Your task to perform on an android device: Clear the cart on target. Image 0: 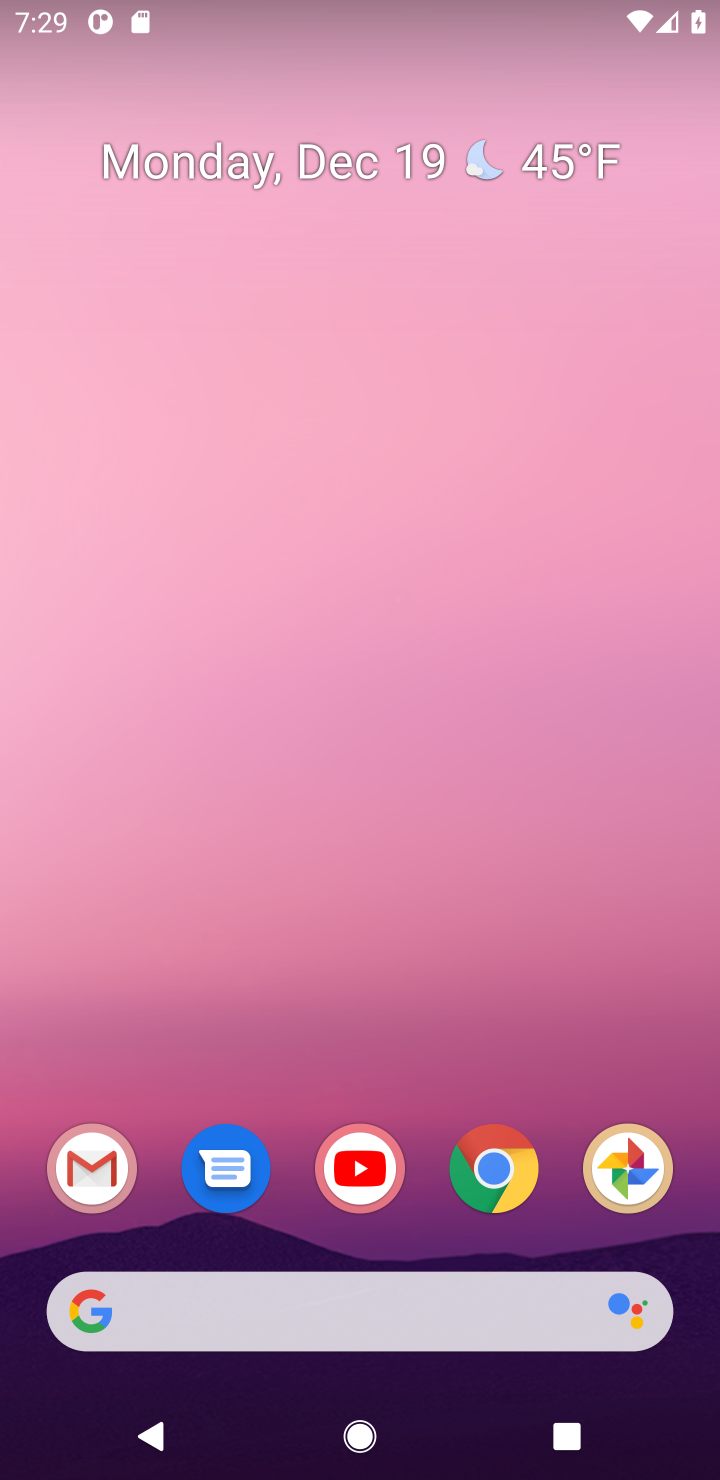
Step 0: click (493, 1173)
Your task to perform on an android device: Clear the cart on target. Image 1: 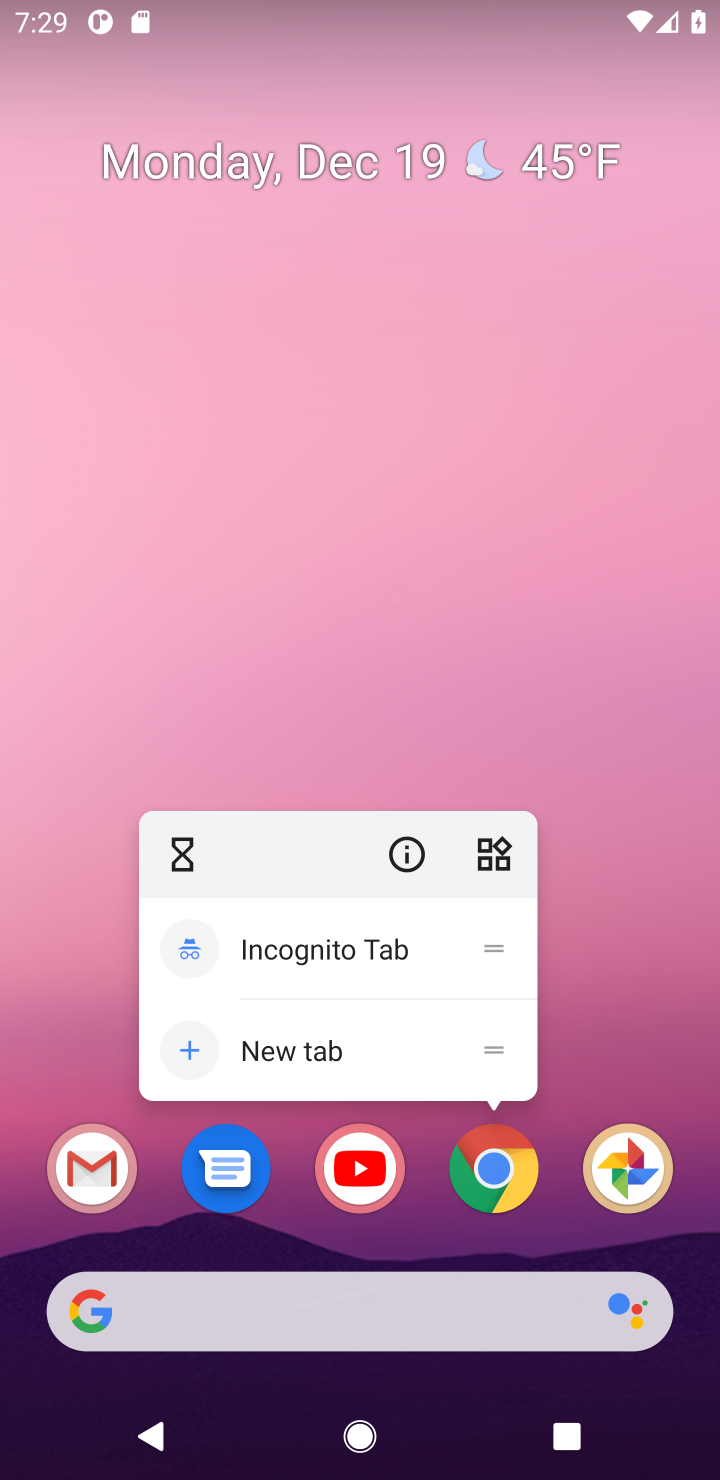
Step 1: click (493, 1173)
Your task to perform on an android device: Clear the cart on target. Image 2: 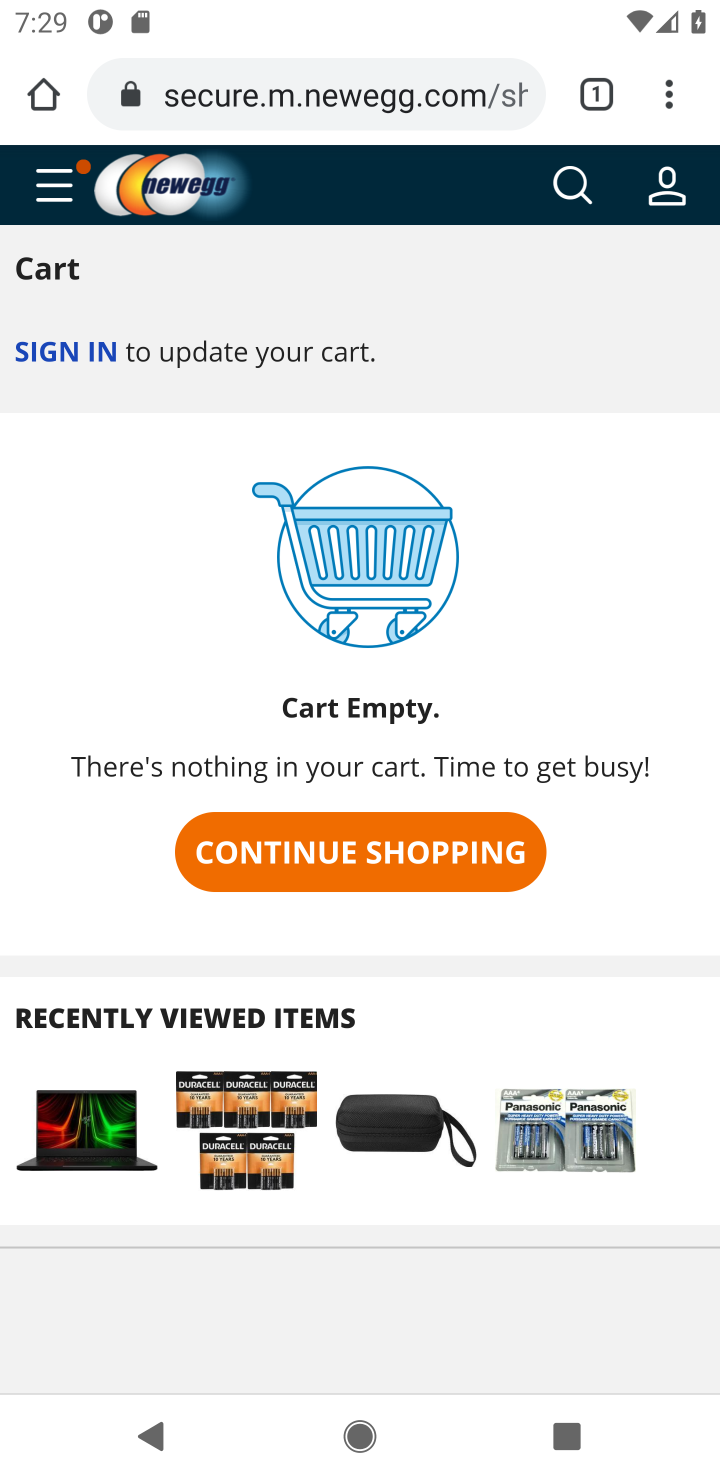
Step 2: click (305, 107)
Your task to perform on an android device: Clear the cart on target. Image 3: 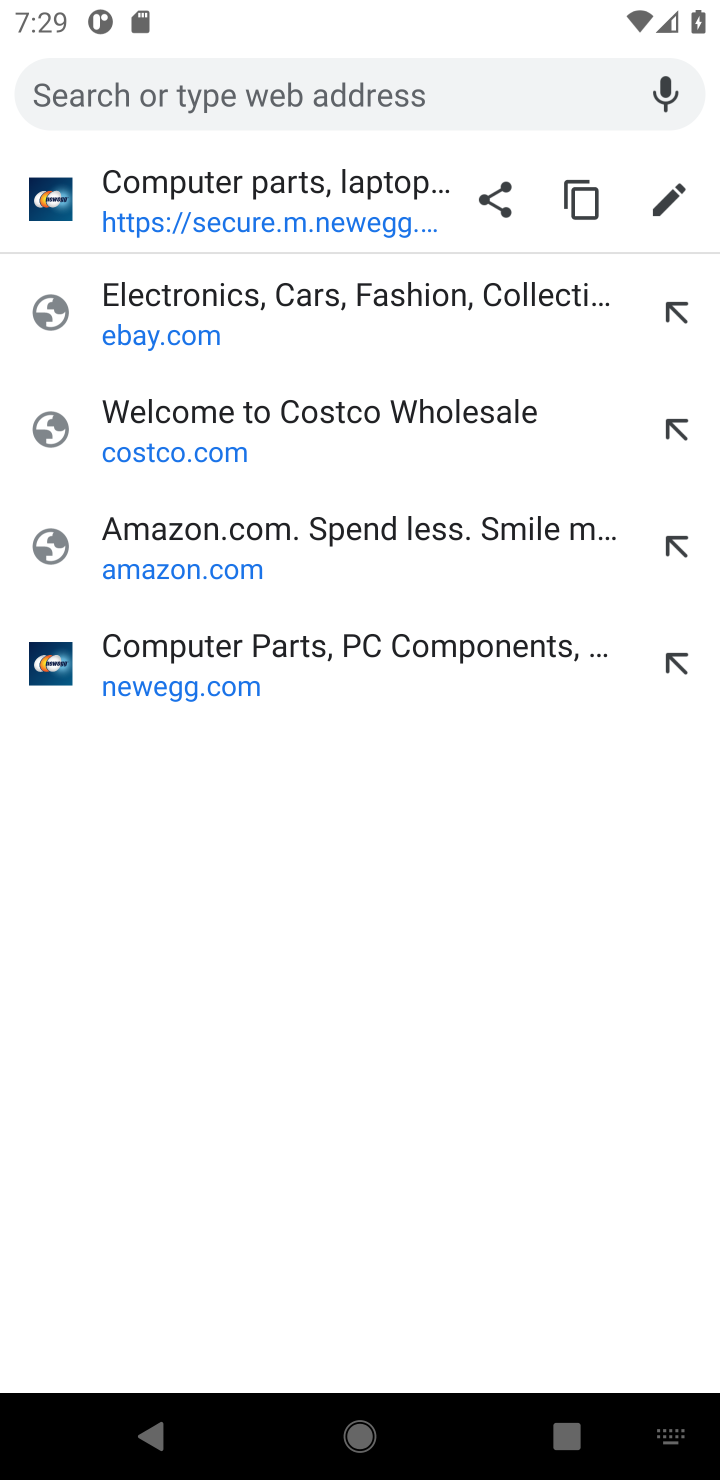
Step 3: type "target.com"
Your task to perform on an android device: Clear the cart on target. Image 4: 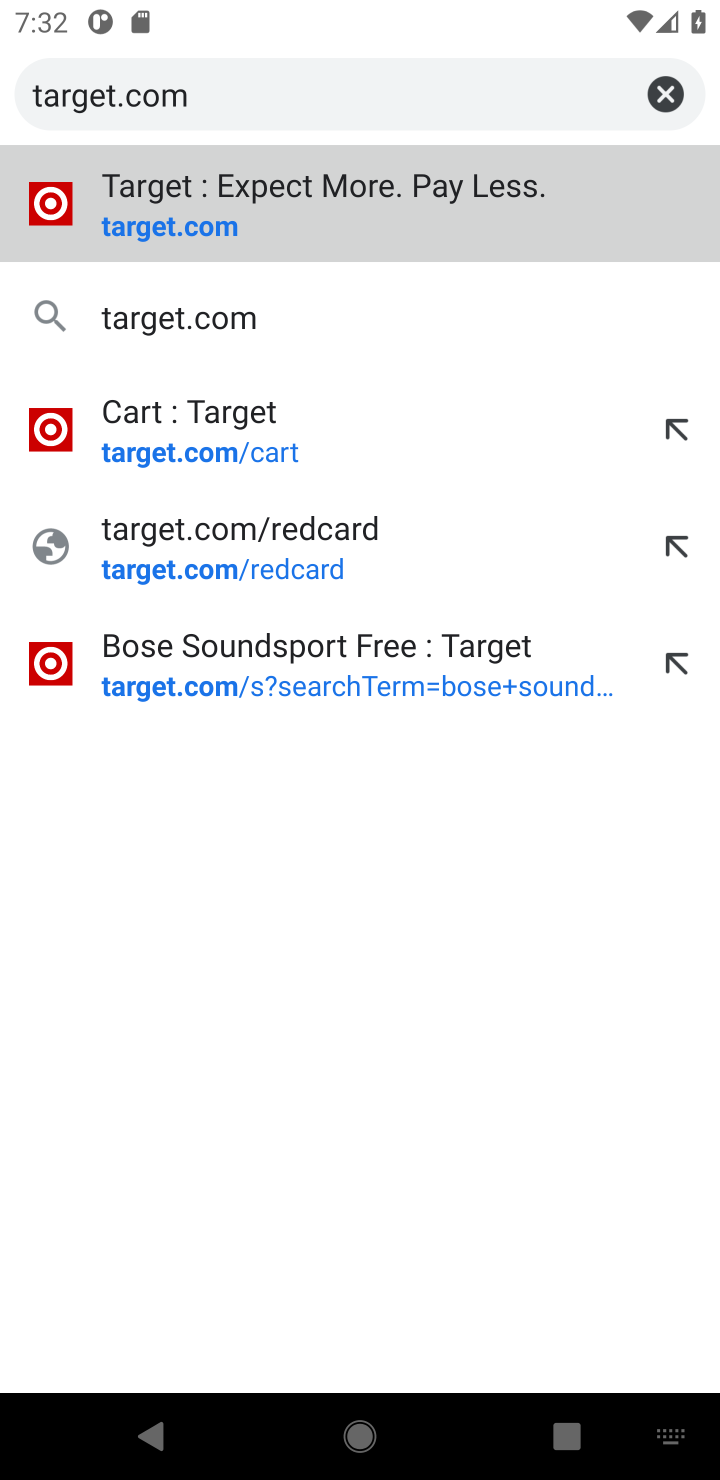
Step 4: click (138, 235)
Your task to perform on an android device: Clear the cart on target. Image 5: 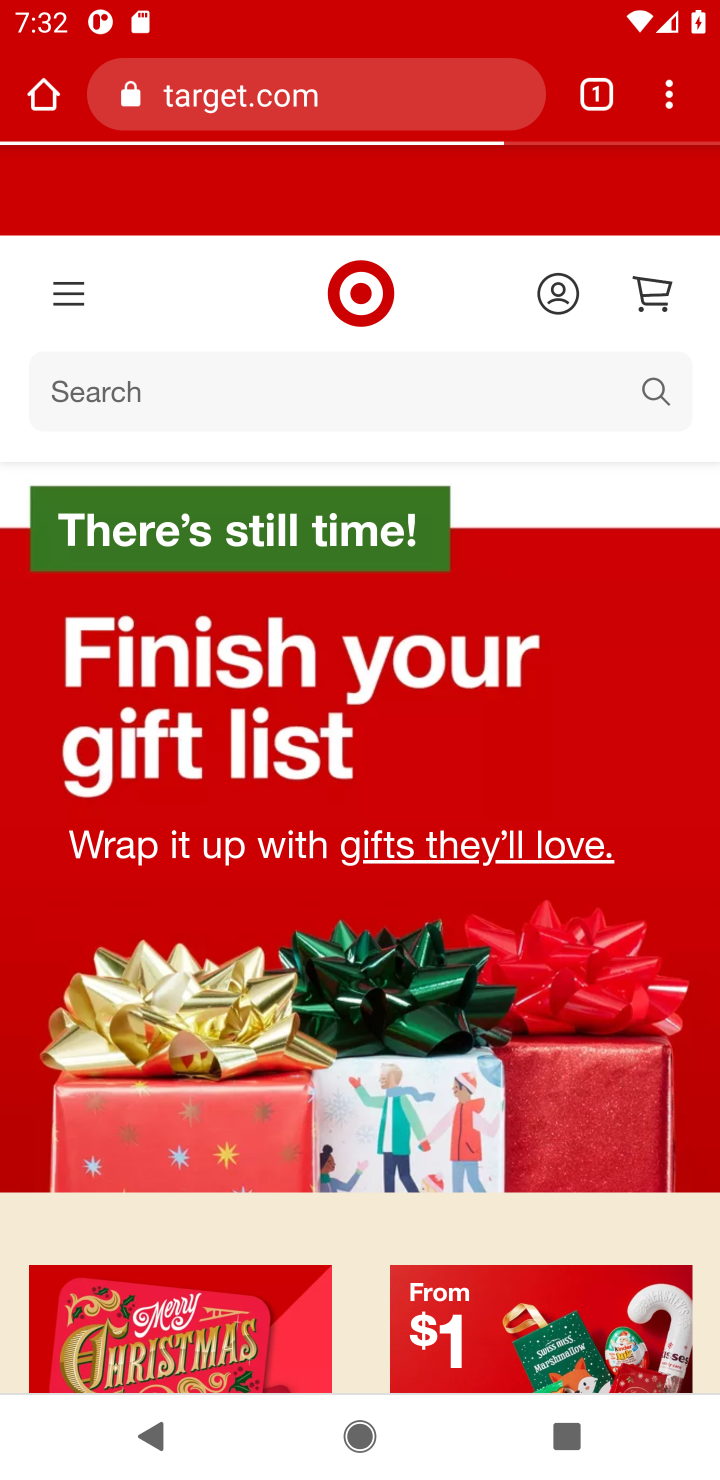
Step 5: click (655, 295)
Your task to perform on an android device: Clear the cart on target. Image 6: 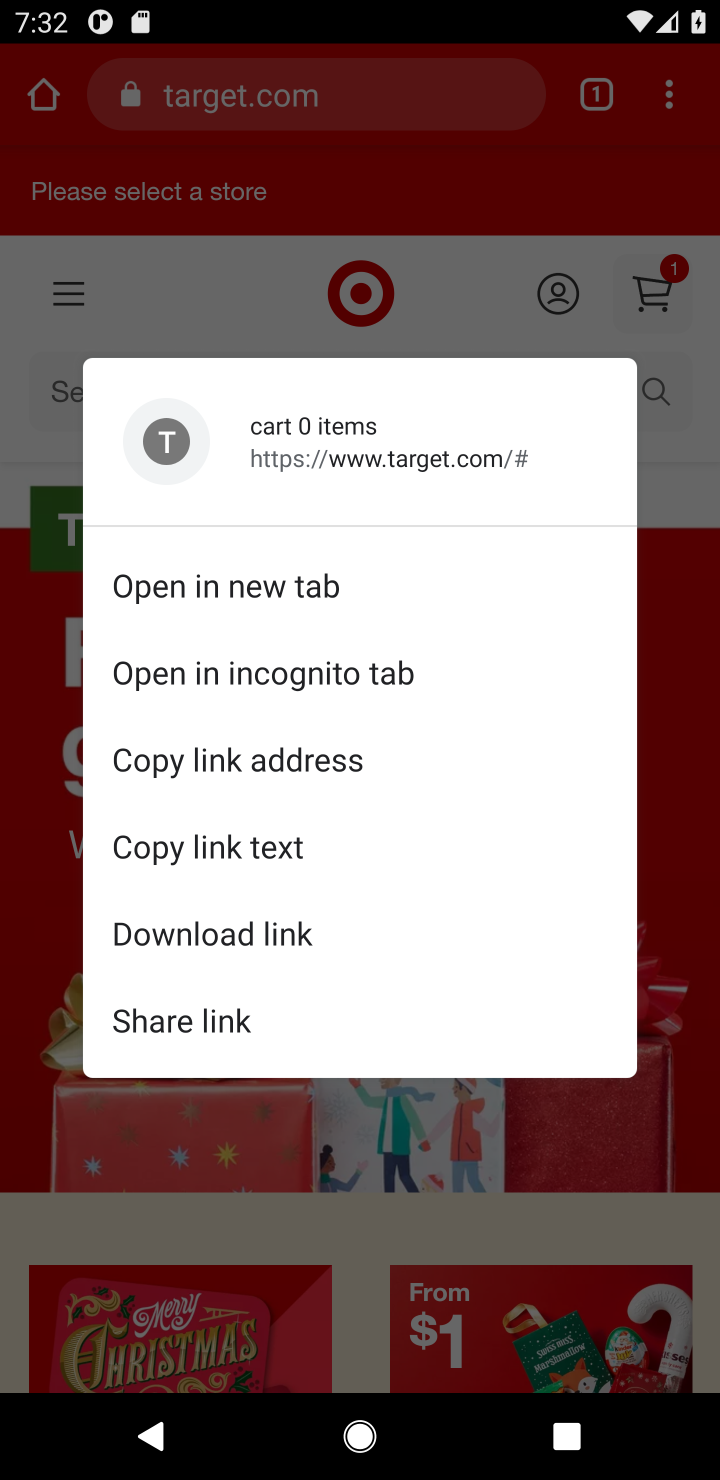
Step 6: click (654, 293)
Your task to perform on an android device: Clear the cart on target. Image 7: 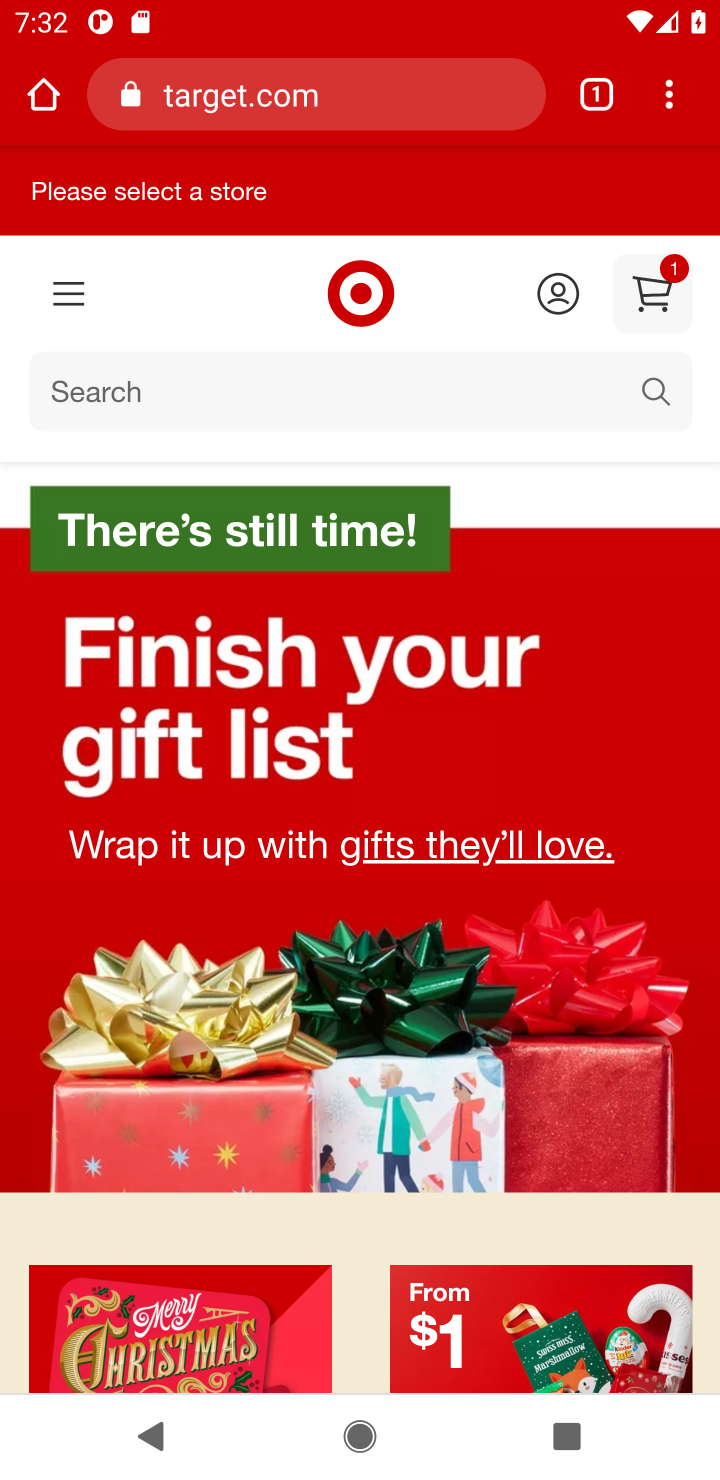
Step 7: click (654, 293)
Your task to perform on an android device: Clear the cart on target. Image 8: 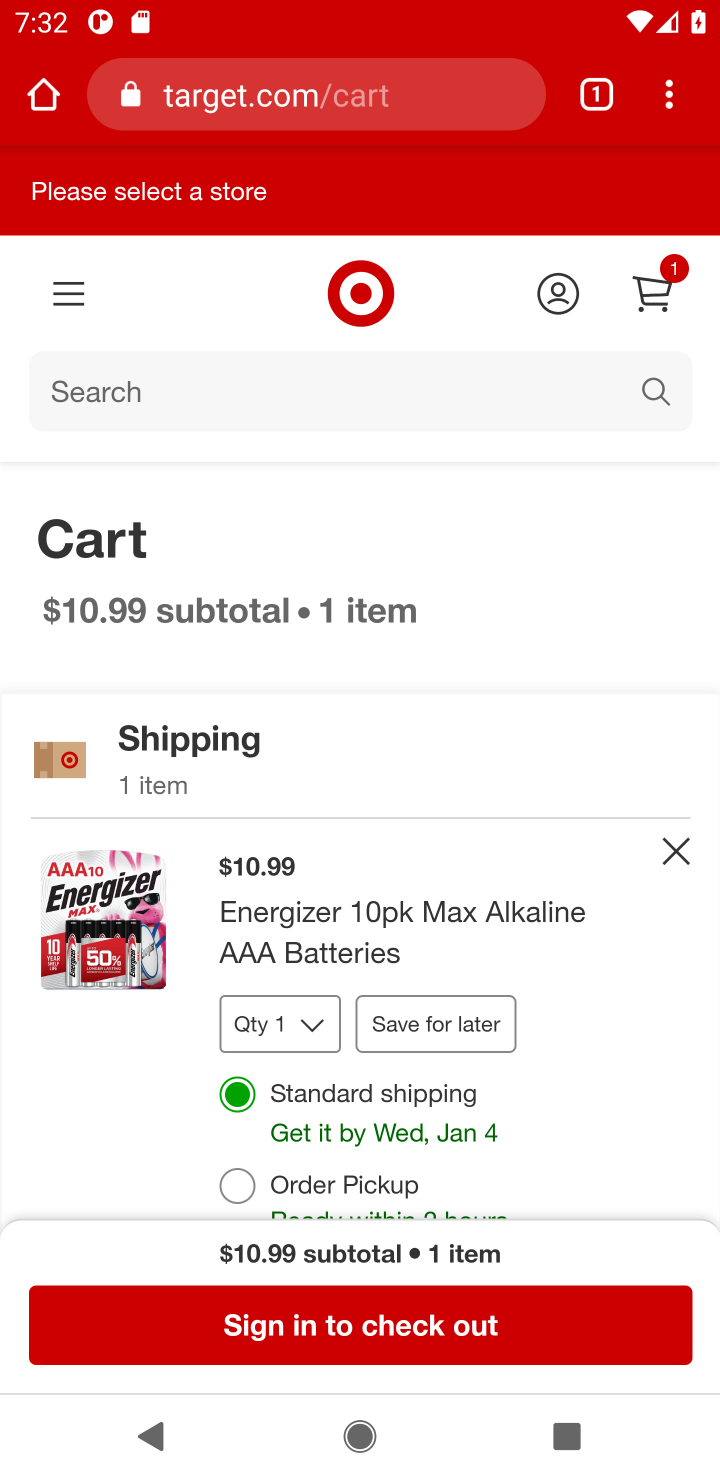
Step 8: click (678, 862)
Your task to perform on an android device: Clear the cart on target. Image 9: 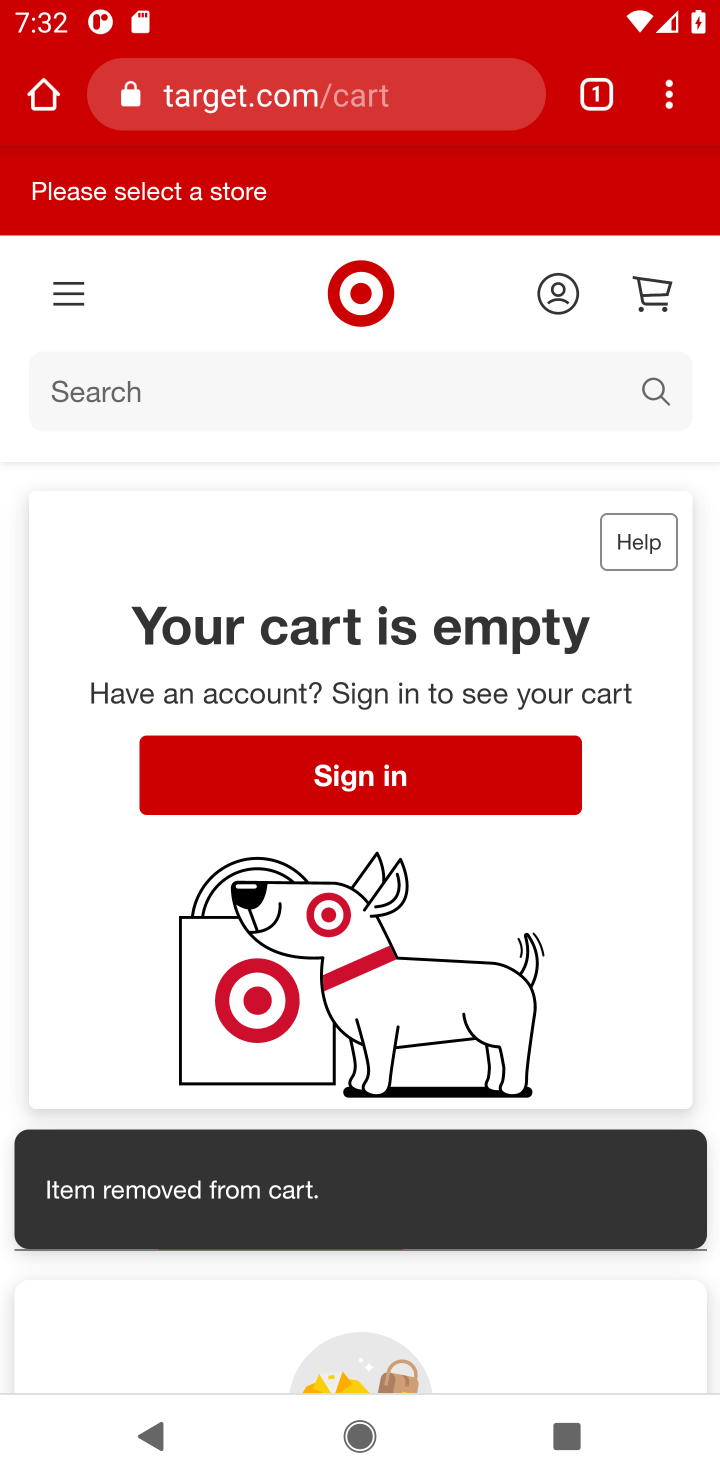
Step 9: task complete